Your task to perform on an android device: turn off location Image 0: 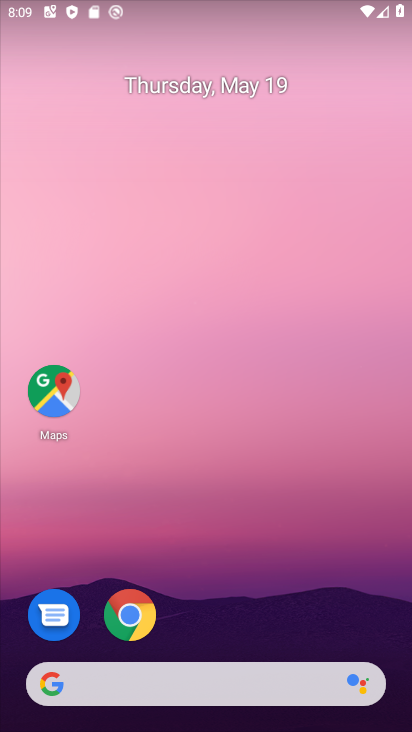
Step 0: drag from (276, 585) to (325, 72)
Your task to perform on an android device: turn off location Image 1: 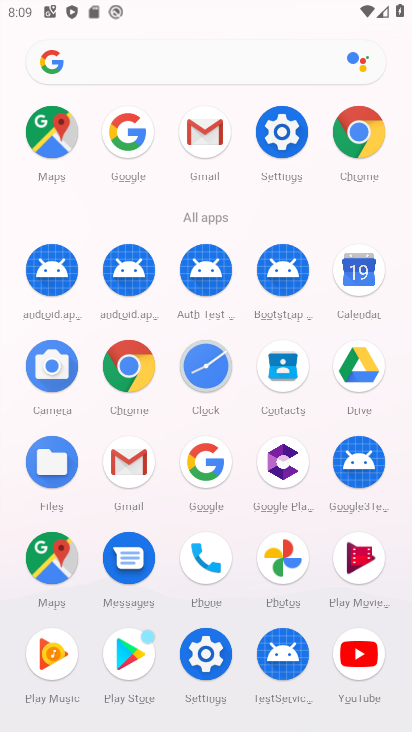
Step 1: click (293, 128)
Your task to perform on an android device: turn off location Image 2: 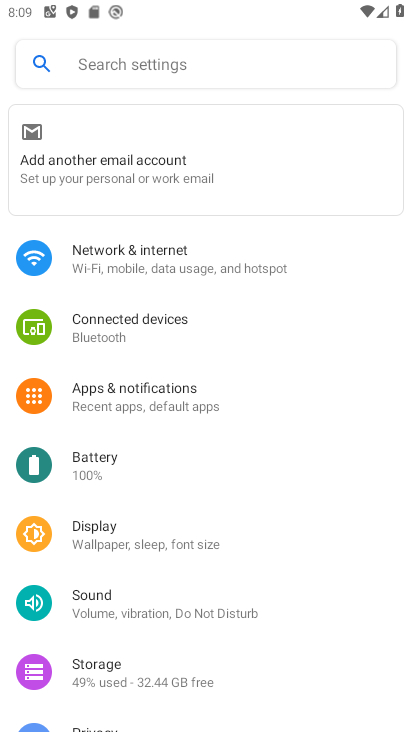
Step 2: drag from (205, 678) to (211, 295)
Your task to perform on an android device: turn off location Image 3: 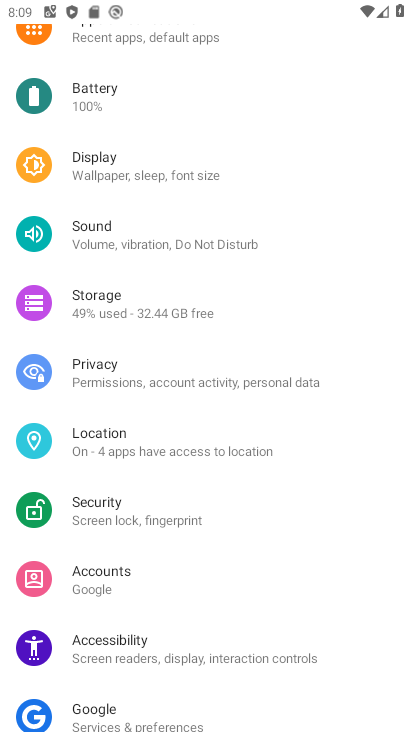
Step 3: click (101, 450)
Your task to perform on an android device: turn off location Image 4: 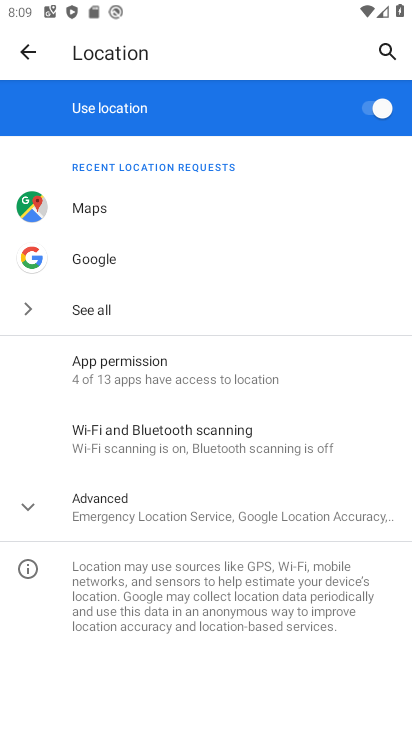
Step 4: click (373, 114)
Your task to perform on an android device: turn off location Image 5: 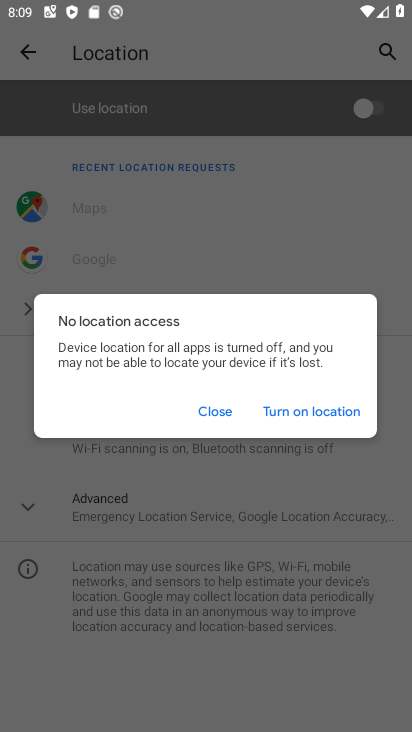
Step 5: click (231, 399)
Your task to perform on an android device: turn off location Image 6: 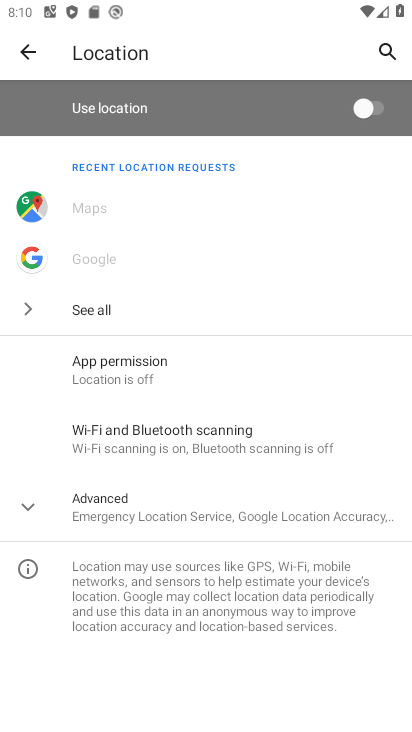
Step 6: task complete